Your task to perform on an android device: Open Youtube and go to the subscriptions tab Image 0: 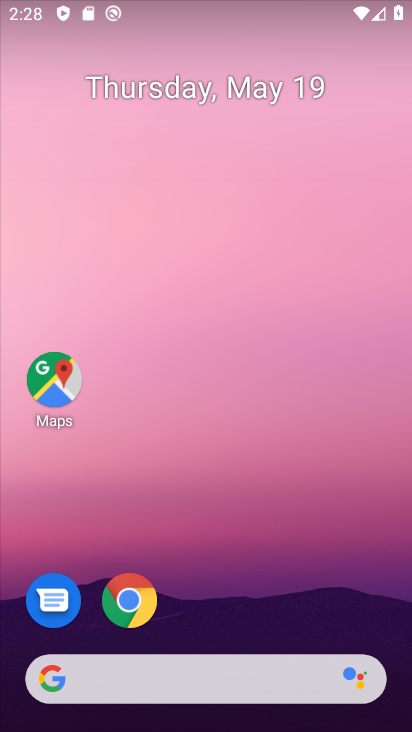
Step 0: drag from (395, 684) to (335, 311)
Your task to perform on an android device: Open Youtube and go to the subscriptions tab Image 1: 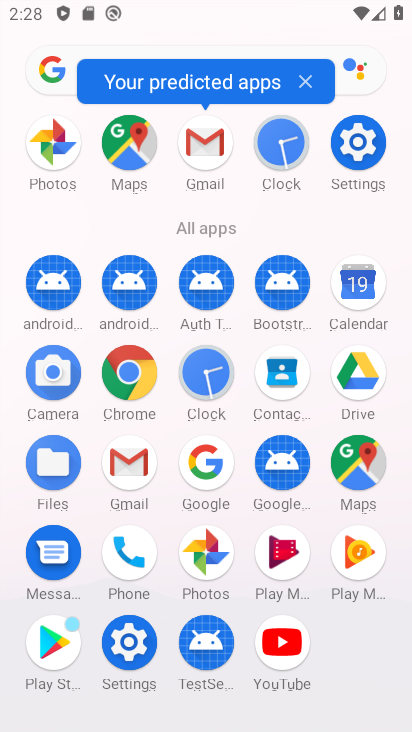
Step 1: click (290, 634)
Your task to perform on an android device: Open Youtube and go to the subscriptions tab Image 2: 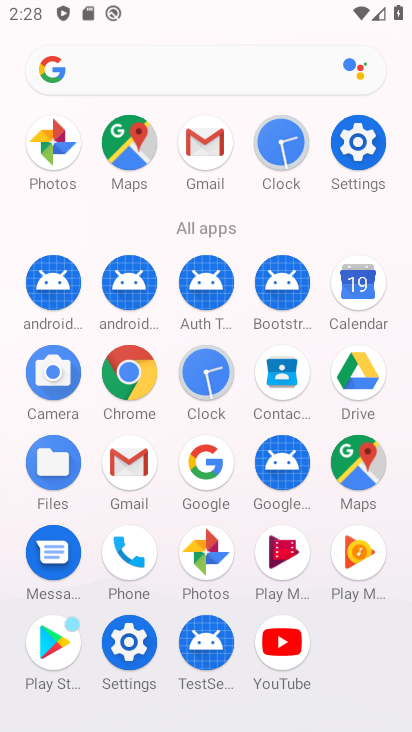
Step 2: click (277, 653)
Your task to perform on an android device: Open Youtube and go to the subscriptions tab Image 3: 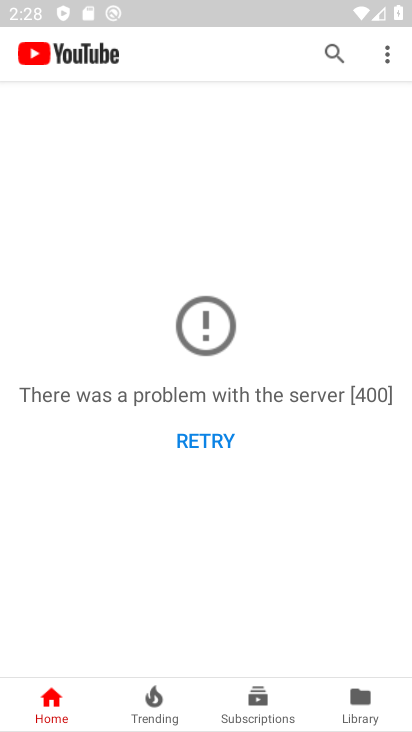
Step 3: click (260, 706)
Your task to perform on an android device: Open Youtube and go to the subscriptions tab Image 4: 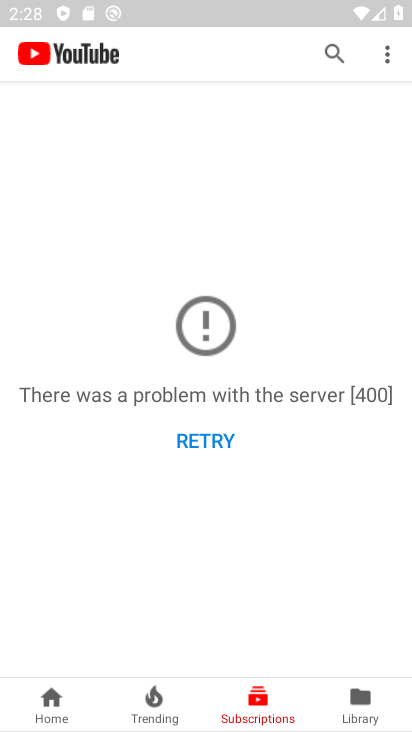
Step 4: task complete